Your task to perform on an android device: clear history in the chrome app Image 0: 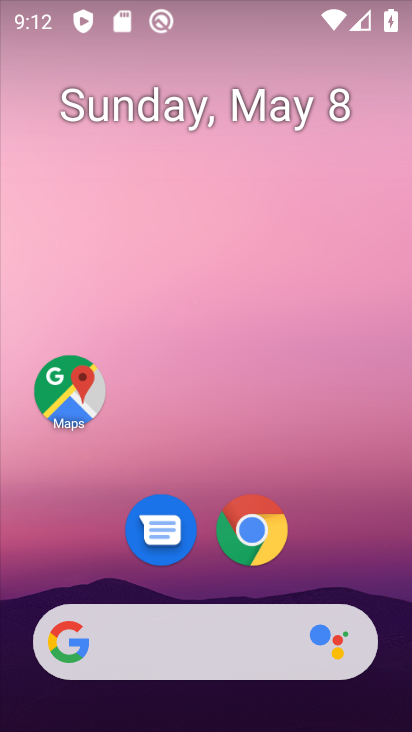
Step 0: click (255, 541)
Your task to perform on an android device: clear history in the chrome app Image 1: 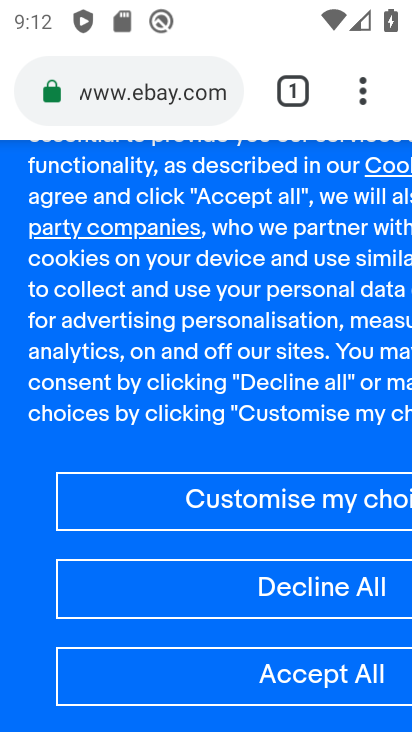
Step 1: click (367, 89)
Your task to perform on an android device: clear history in the chrome app Image 2: 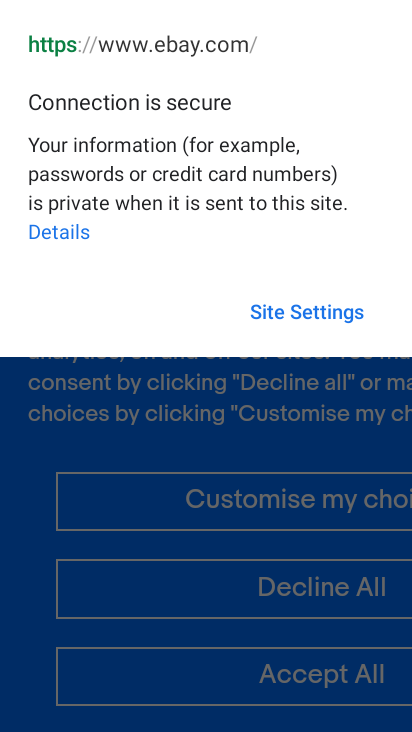
Step 2: click (333, 318)
Your task to perform on an android device: clear history in the chrome app Image 3: 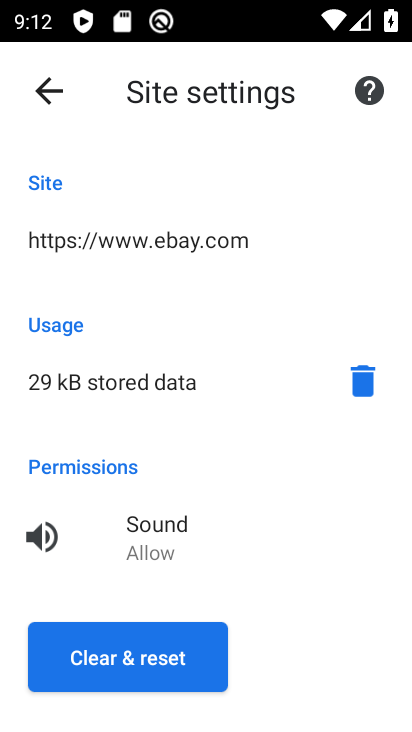
Step 3: drag from (267, 659) to (261, 377)
Your task to perform on an android device: clear history in the chrome app Image 4: 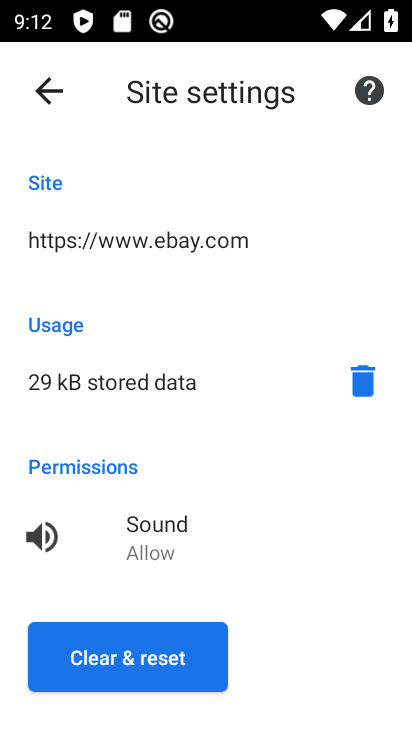
Step 4: click (177, 657)
Your task to perform on an android device: clear history in the chrome app Image 5: 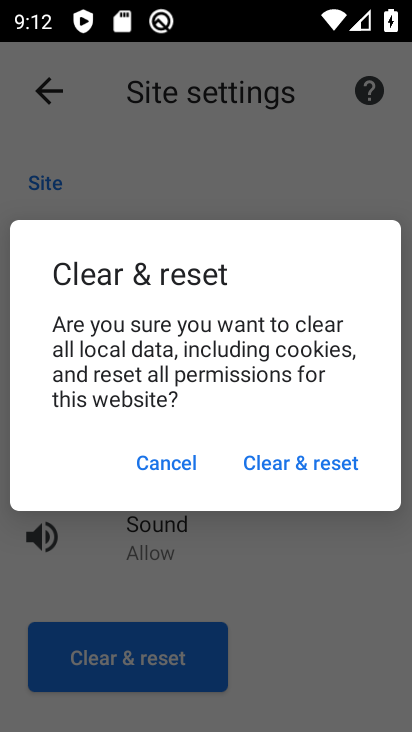
Step 5: click (346, 458)
Your task to perform on an android device: clear history in the chrome app Image 6: 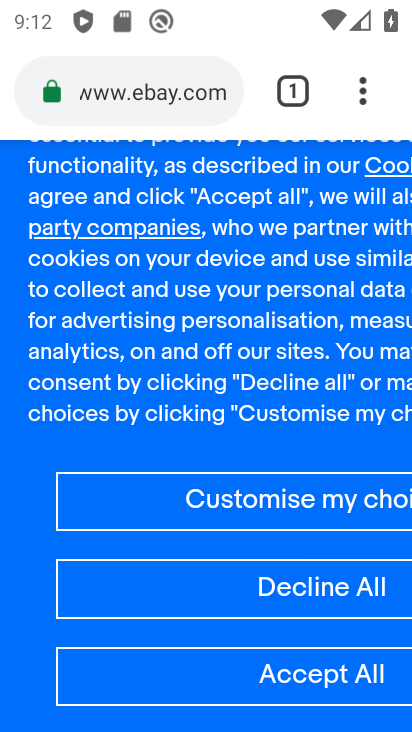
Step 6: task complete